Your task to perform on an android device: Is it going to rain today? Image 0: 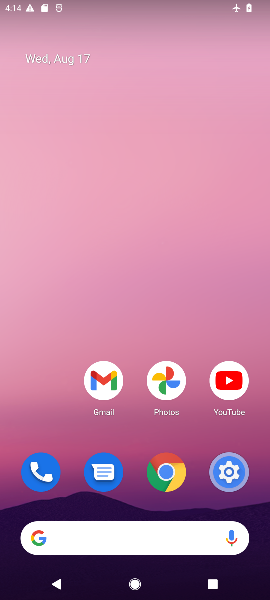
Step 0: click (183, 533)
Your task to perform on an android device: Is it going to rain today? Image 1: 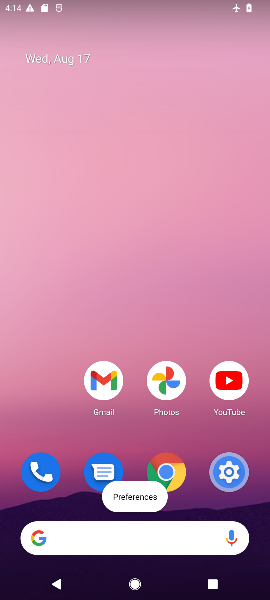
Step 1: click (68, 530)
Your task to perform on an android device: Is it going to rain today? Image 2: 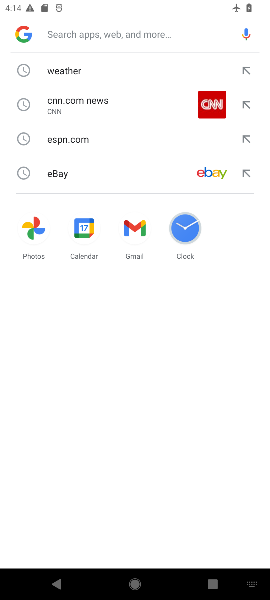
Step 2: click (76, 73)
Your task to perform on an android device: Is it going to rain today? Image 3: 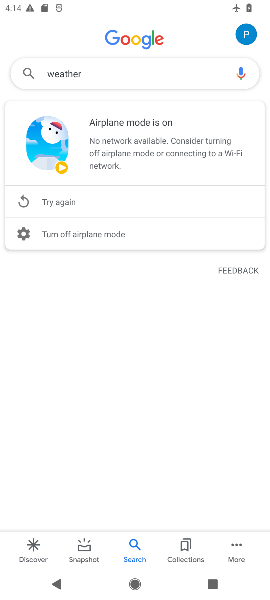
Step 3: task complete